Your task to perform on an android device: Go to Android settings Image 0: 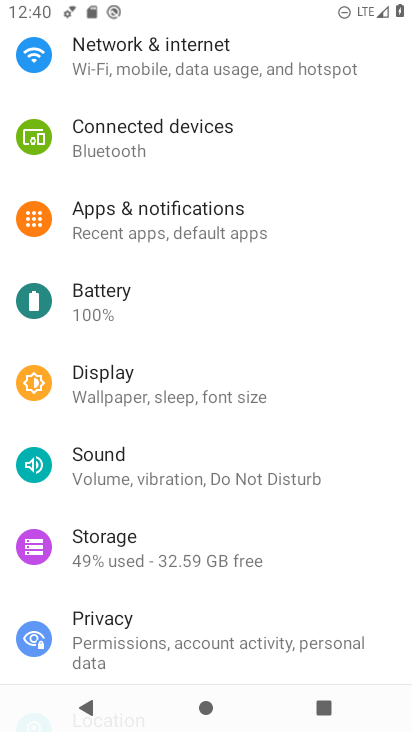
Step 0: drag from (271, 560) to (245, 179)
Your task to perform on an android device: Go to Android settings Image 1: 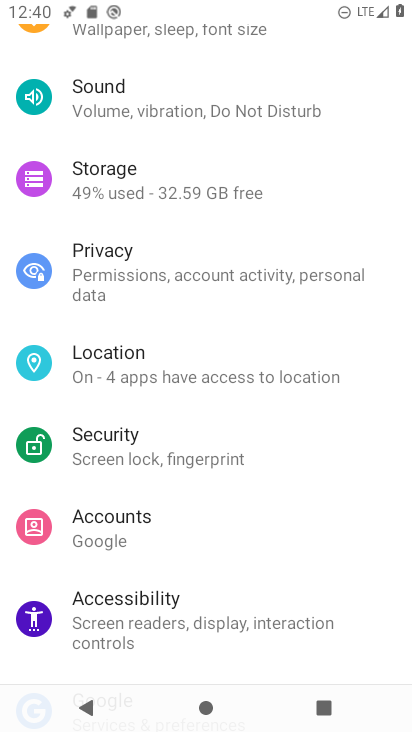
Step 1: drag from (226, 542) to (224, 114)
Your task to perform on an android device: Go to Android settings Image 2: 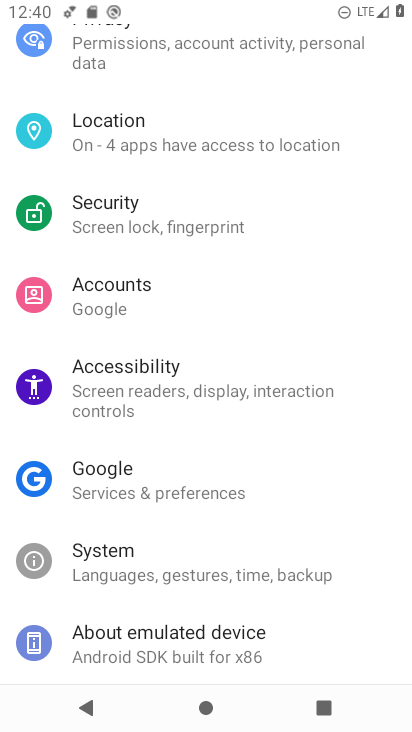
Step 2: click (211, 644)
Your task to perform on an android device: Go to Android settings Image 3: 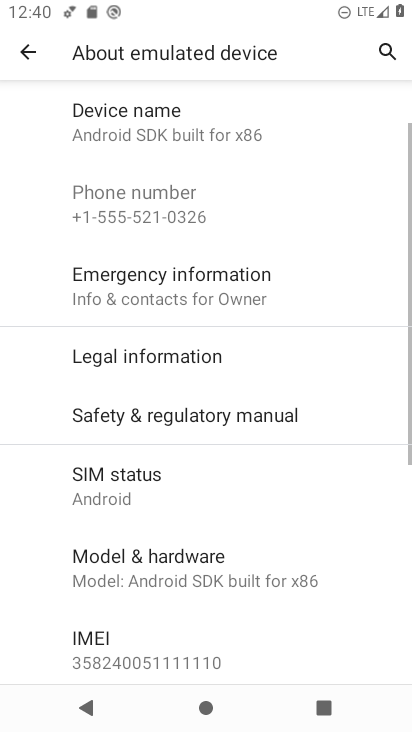
Step 3: task complete